Your task to perform on an android device: Open Reddit.com Image 0: 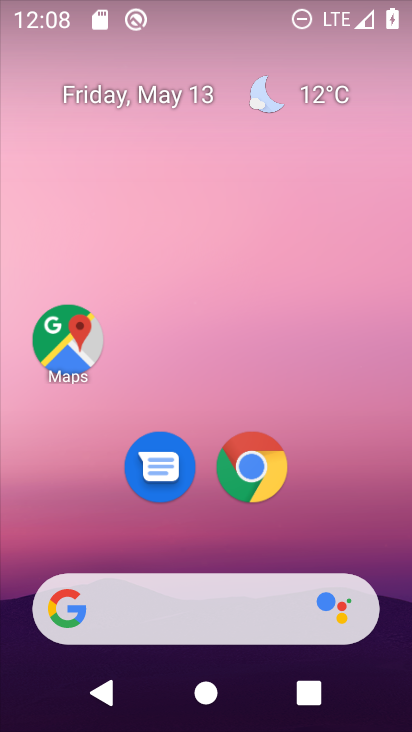
Step 0: drag from (346, 535) to (216, 24)
Your task to perform on an android device: Open Reddit.com Image 1: 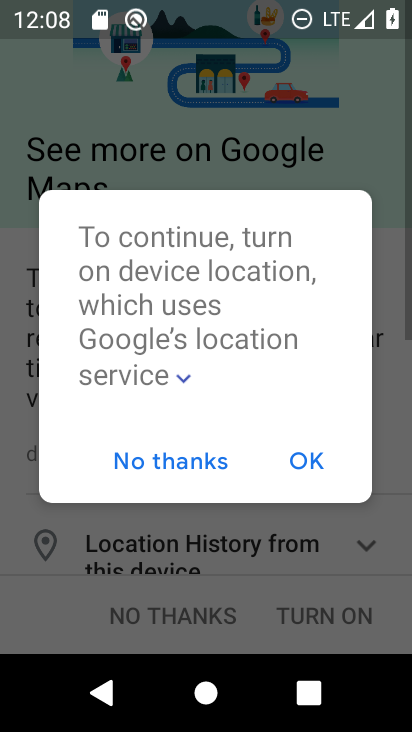
Step 1: click (307, 459)
Your task to perform on an android device: Open Reddit.com Image 2: 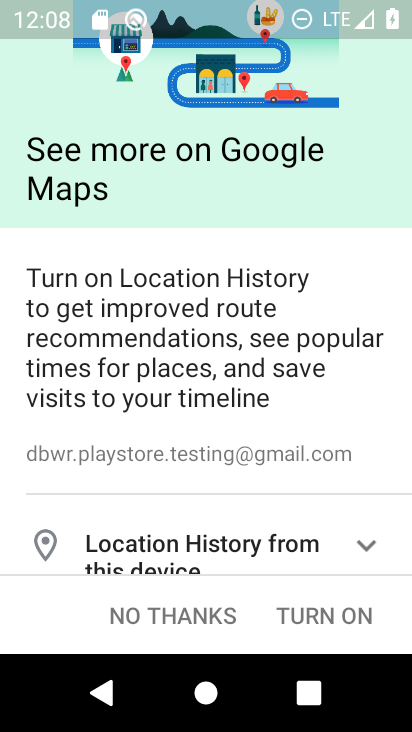
Step 2: click (325, 610)
Your task to perform on an android device: Open Reddit.com Image 3: 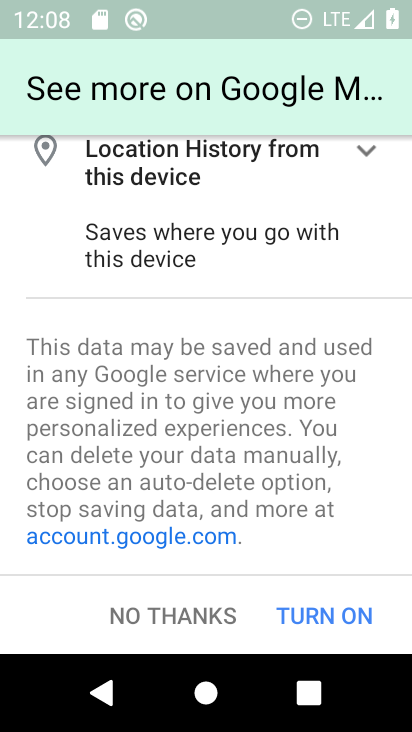
Step 3: click (325, 610)
Your task to perform on an android device: Open Reddit.com Image 4: 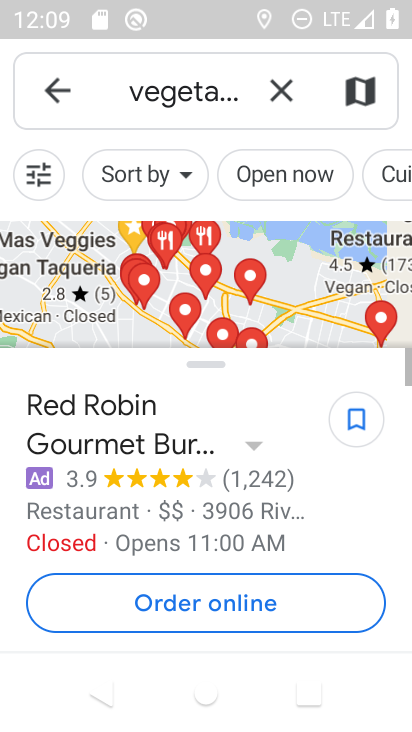
Step 4: click (275, 78)
Your task to perform on an android device: Open Reddit.com Image 5: 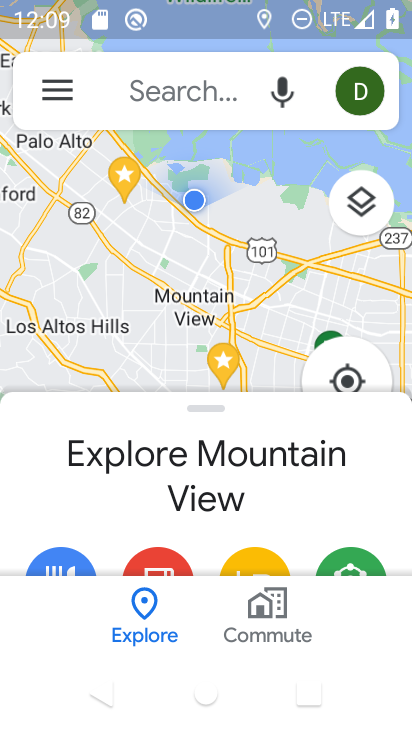
Step 5: click (122, 96)
Your task to perform on an android device: Open Reddit.com Image 6: 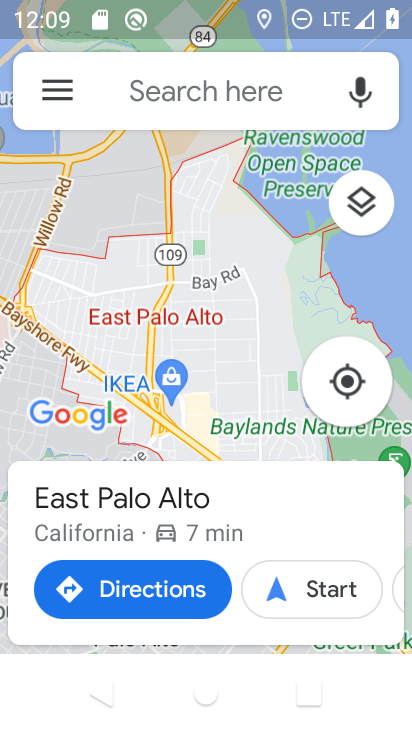
Step 6: click (126, 84)
Your task to perform on an android device: Open Reddit.com Image 7: 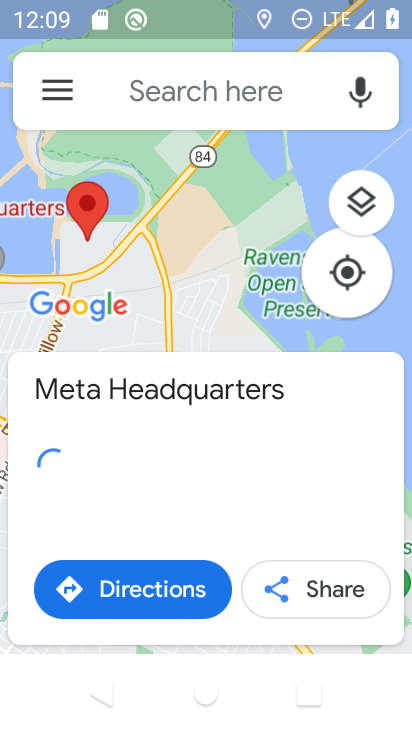
Step 7: click (126, 84)
Your task to perform on an android device: Open Reddit.com Image 8: 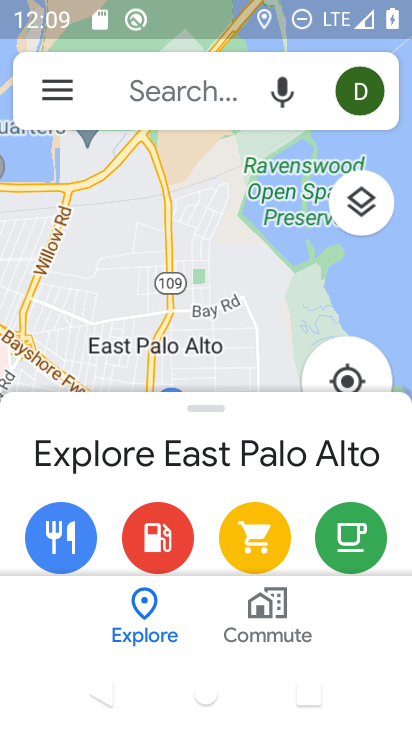
Step 8: click (120, 90)
Your task to perform on an android device: Open Reddit.com Image 9: 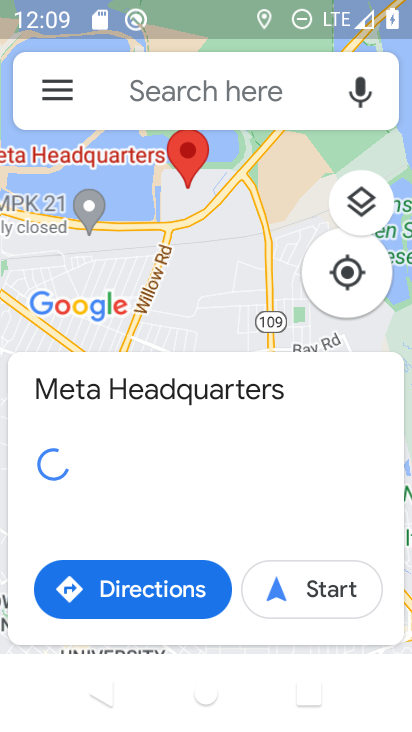
Step 9: click (129, 84)
Your task to perform on an android device: Open Reddit.com Image 10: 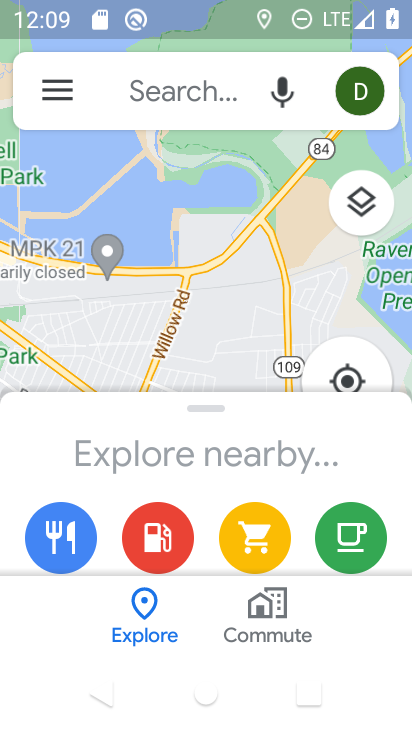
Step 10: click (162, 76)
Your task to perform on an android device: Open Reddit.com Image 11: 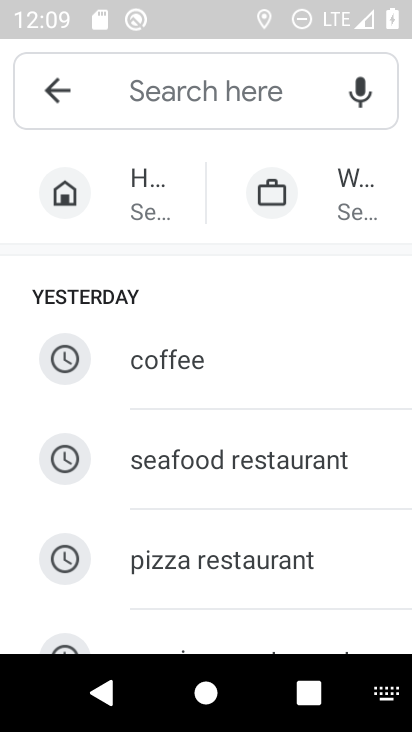
Step 11: press back button
Your task to perform on an android device: Open Reddit.com Image 12: 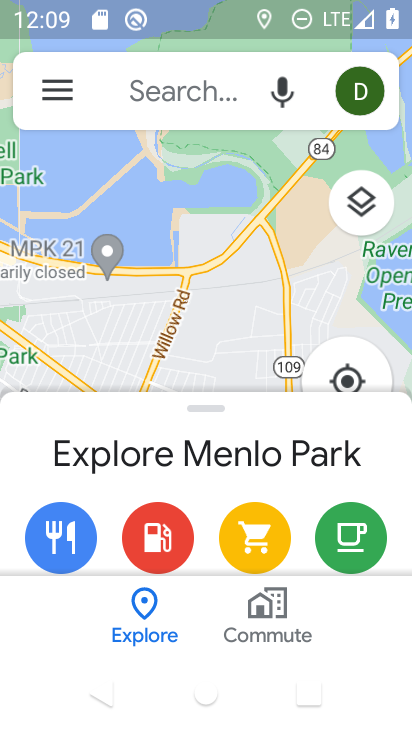
Step 12: press back button
Your task to perform on an android device: Open Reddit.com Image 13: 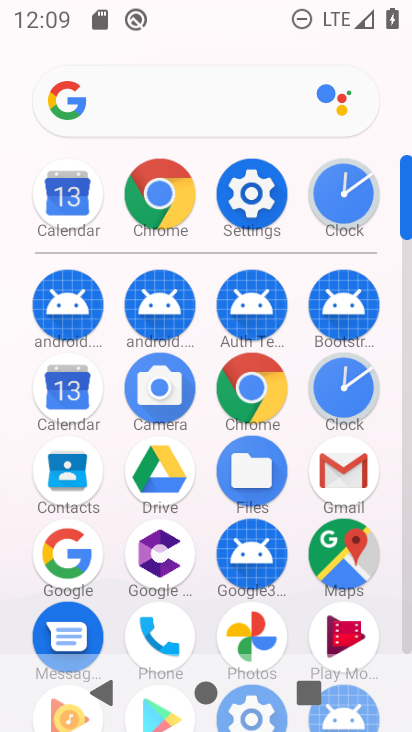
Step 13: click (252, 385)
Your task to perform on an android device: Open Reddit.com Image 14: 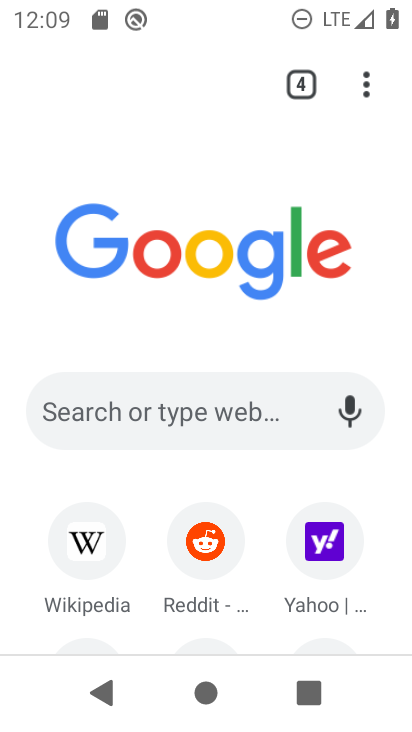
Step 14: click (204, 533)
Your task to perform on an android device: Open Reddit.com Image 15: 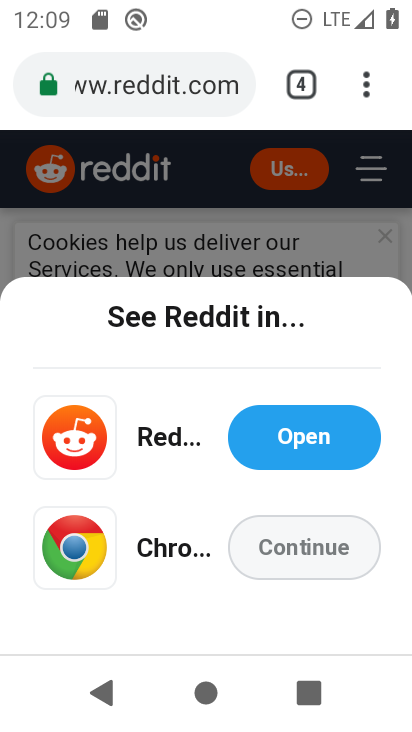
Step 15: task complete